Your task to perform on an android device: Open wifi settings Image 0: 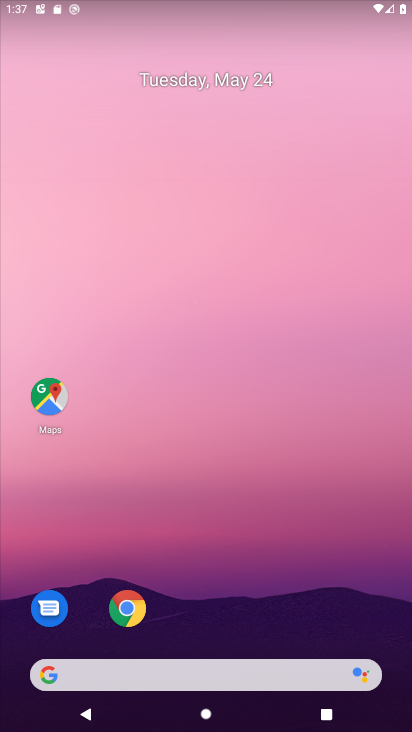
Step 0: drag from (352, 567) to (84, 20)
Your task to perform on an android device: Open wifi settings Image 1: 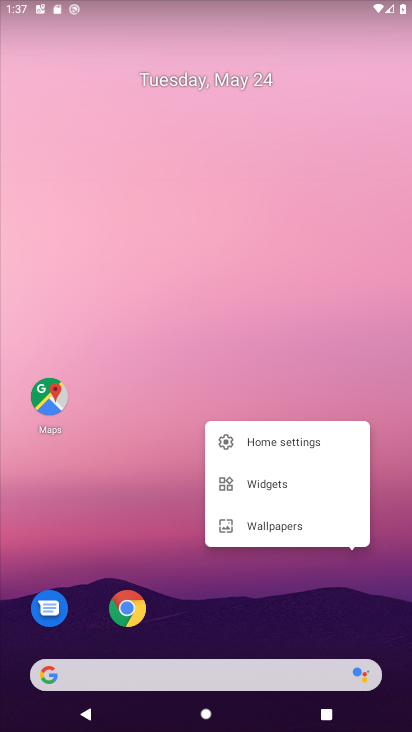
Step 1: click (193, 255)
Your task to perform on an android device: Open wifi settings Image 2: 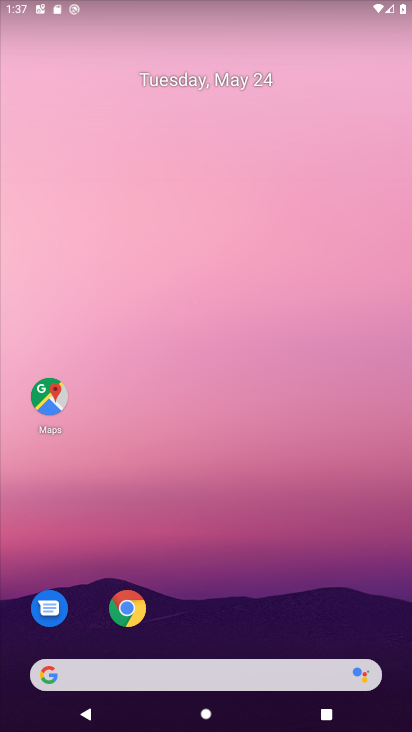
Step 2: drag from (269, 607) to (177, 157)
Your task to perform on an android device: Open wifi settings Image 3: 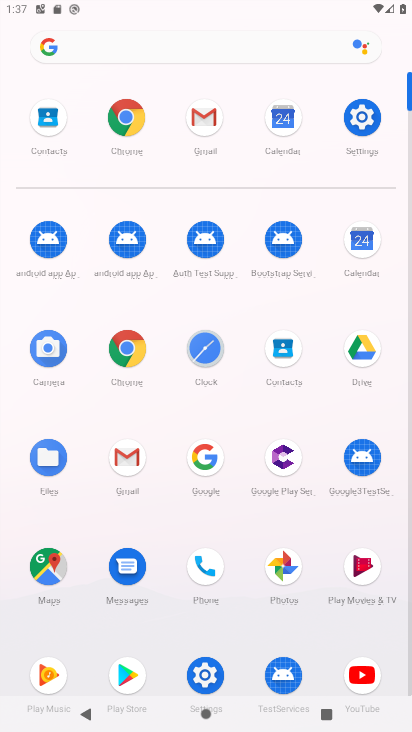
Step 3: click (369, 121)
Your task to perform on an android device: Open wifi settings Image 4: 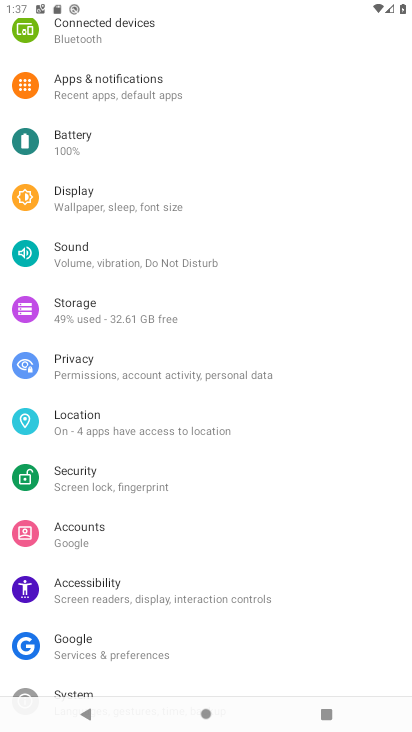
Step 4: drag from (194, 87) to (226, 397)
Your task to perform on an android device: Open wifi settings Image 5: 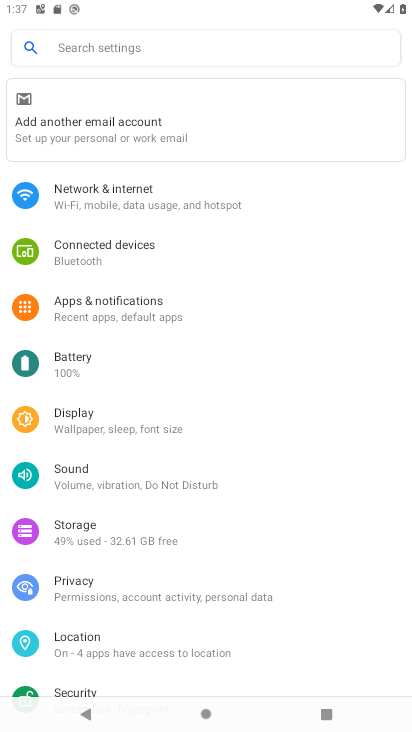
Step 5: click (214, 201)
Your task to perform on an android device: Open wifi settings Image 6: 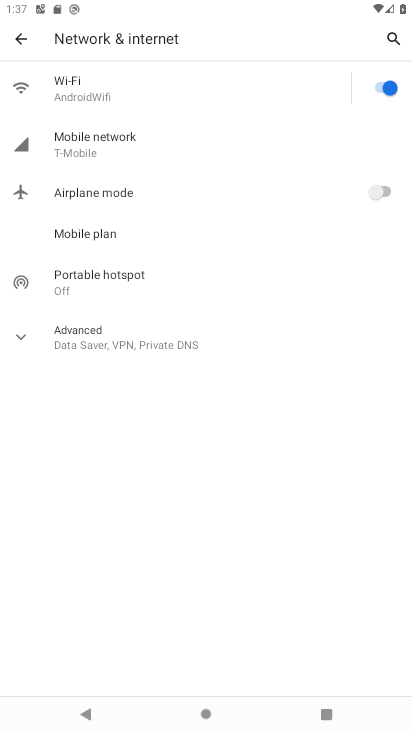
Step 6: task complete